Your task to perform on an android device: Open the map Image 0: 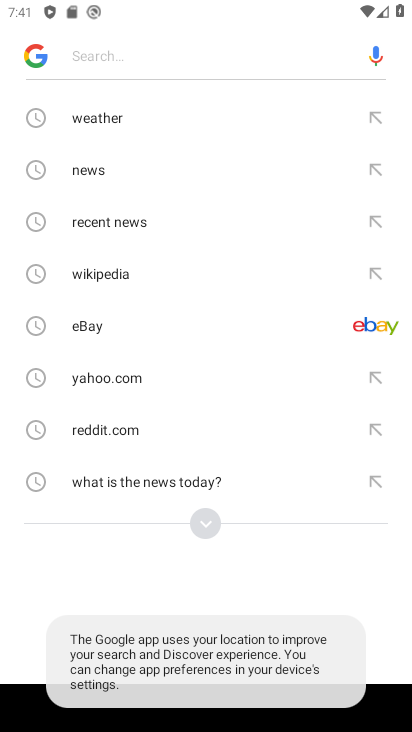
Step 0: press home button
Your task to perform on an android device: Open the map Image 1: 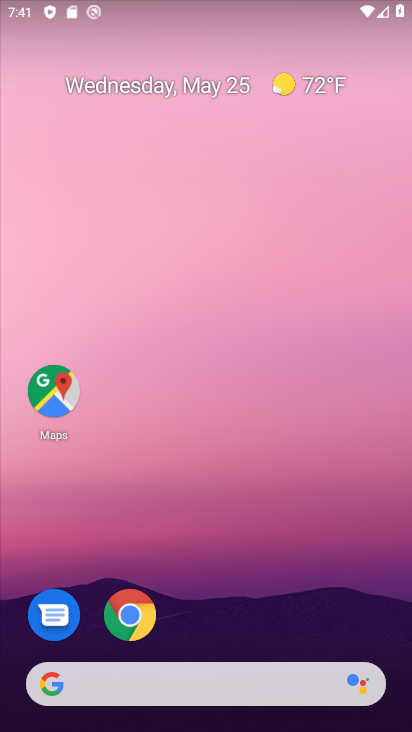
Step 1: click (52, 390)
Your task to perform on an android device: Open the map Image 2: 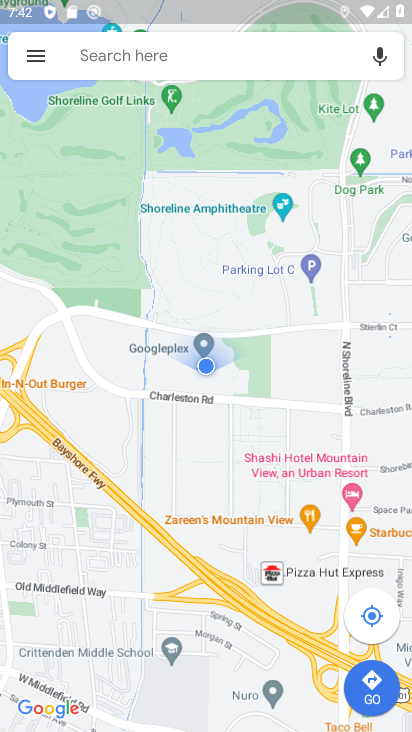
Step 2: task complete